Your task to perform on an android device: delete the emails in spam in the gmail app Image 0: 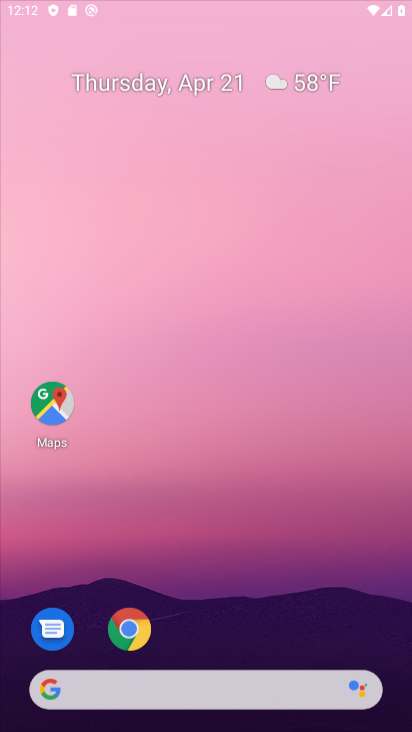
Step 0: drag from (205, 407) to (312, 38)
Your task to perform on an android device: delete the emails in spam in the gmail app Image 1: 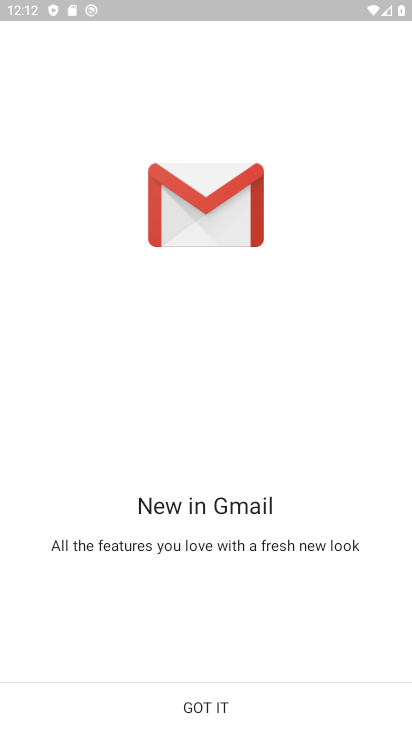
Step 1: press home button
Your task to perform on an android device: delete the emails in spam in the gmail app Image 2: 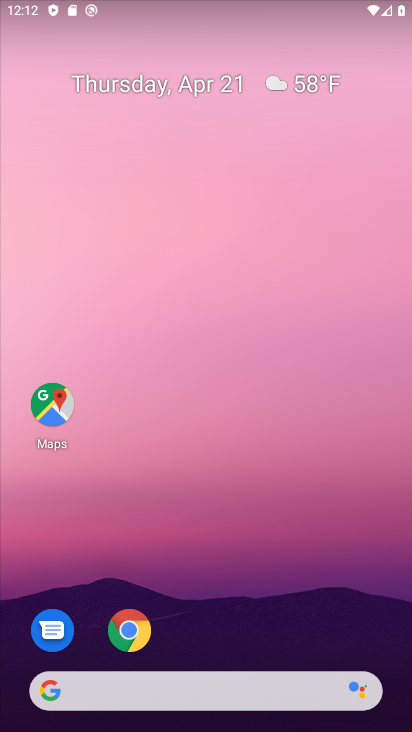
Step 2: drag from (185, 685) to (299, 170)
Your task to perform on an android device: delete the emails in spam in the gmail app Image 3: 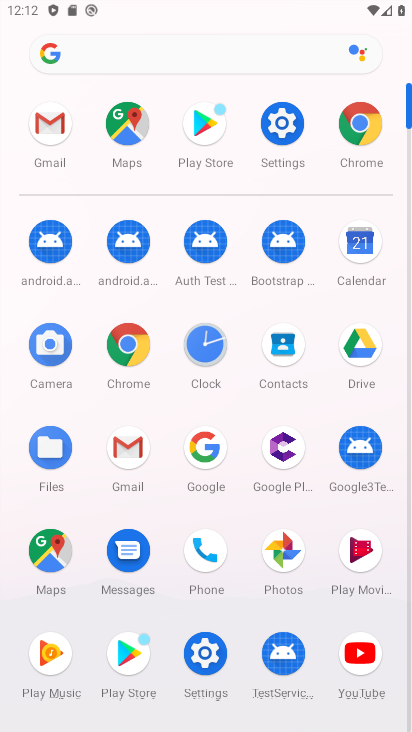
Step 3: click (126, 454)
Your task to perform on an android device: delete the emails in spam in the gmail app Image 4: 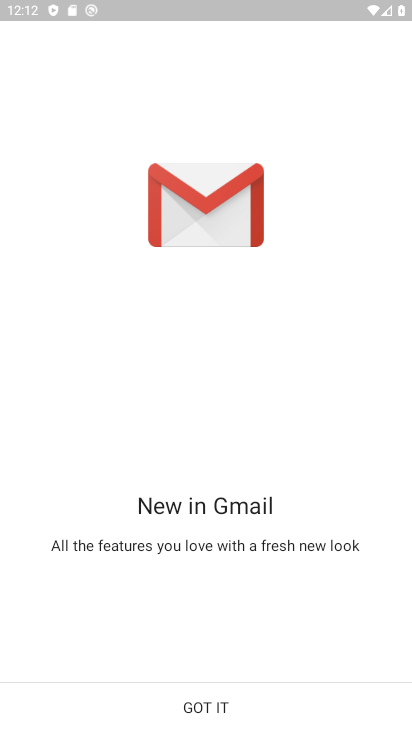
Step 4: click (220, 703)
Your task to perform on an android device: delete the emails in spam in the gmail app Image 5: 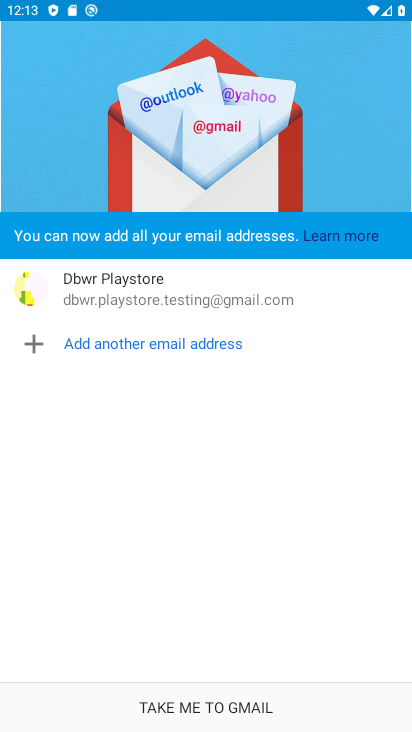
Step 5: click (220, 703)
Your task to perform on an android device: delete the emails in spam in the gmail app Image 6: 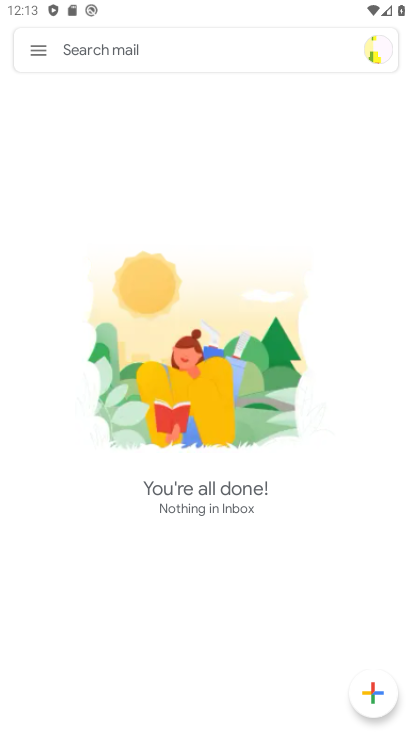
Step 6: click (31, 55)
Your task to perform on an android device: delete the emails in spam in the gmail app Image 7: 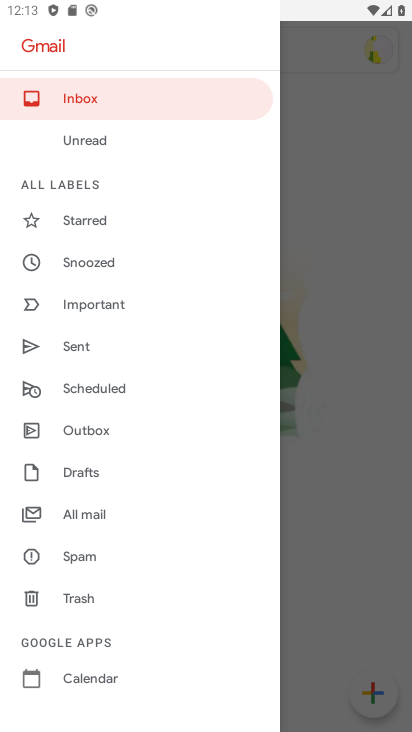
Step 7: click (93, 556)
Your task to perform on an android device: delete the emails in spam in the gmail app Image 8: 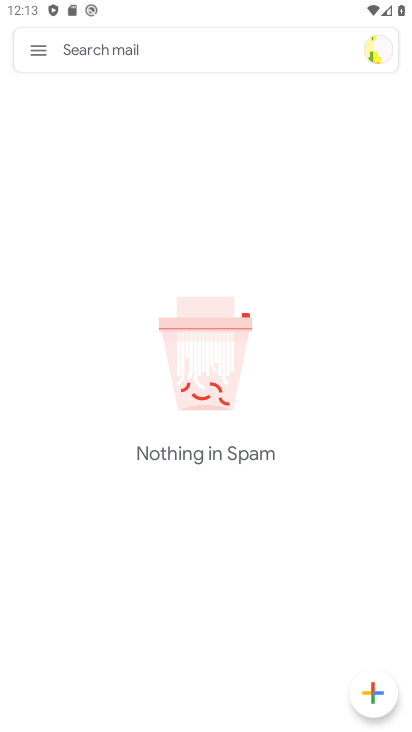
Step 8: task complete